Your task to perform on an android device: turn on bluetooth scan Image 0: 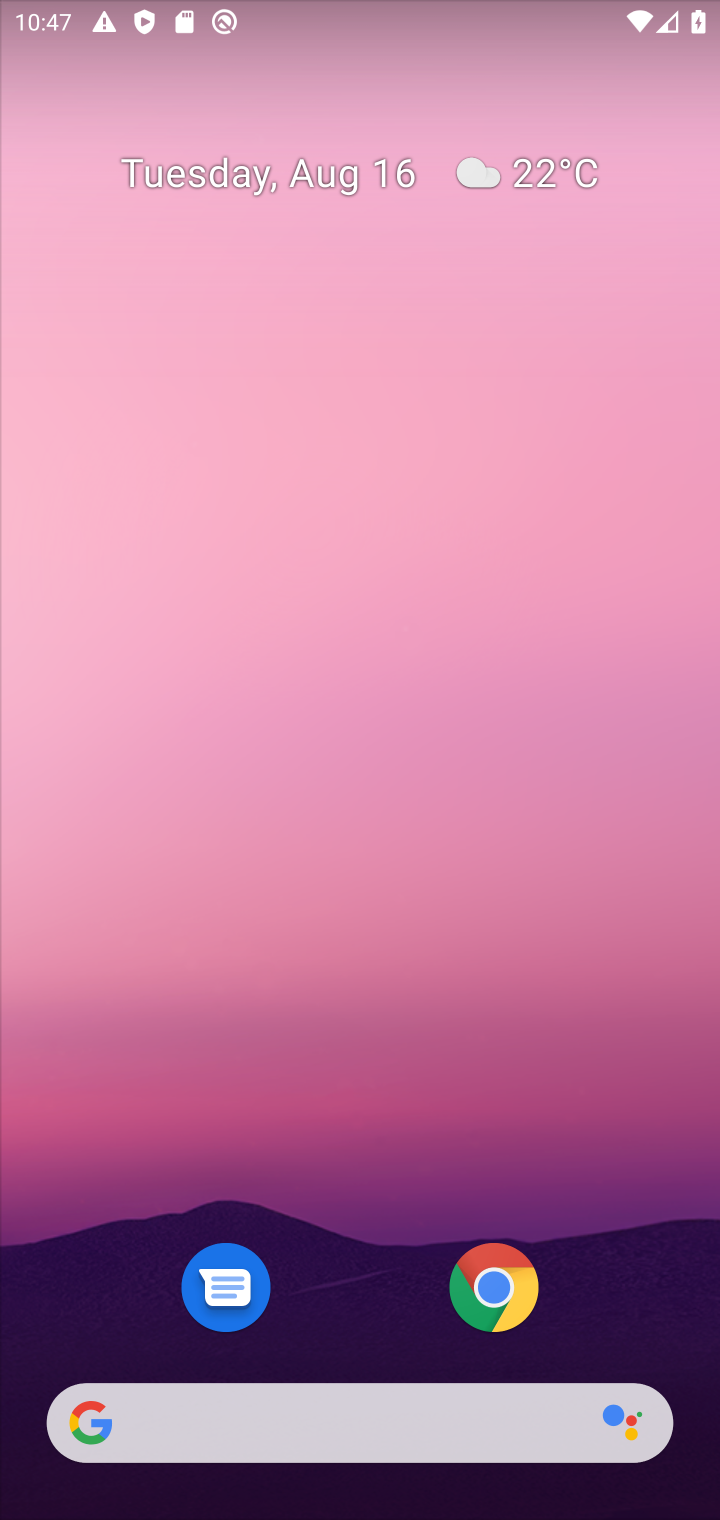
Step 0: drag from (665, 1305) to (593, 365)
Your task to perform on an android device: turn on bluetooth scan Image 1: 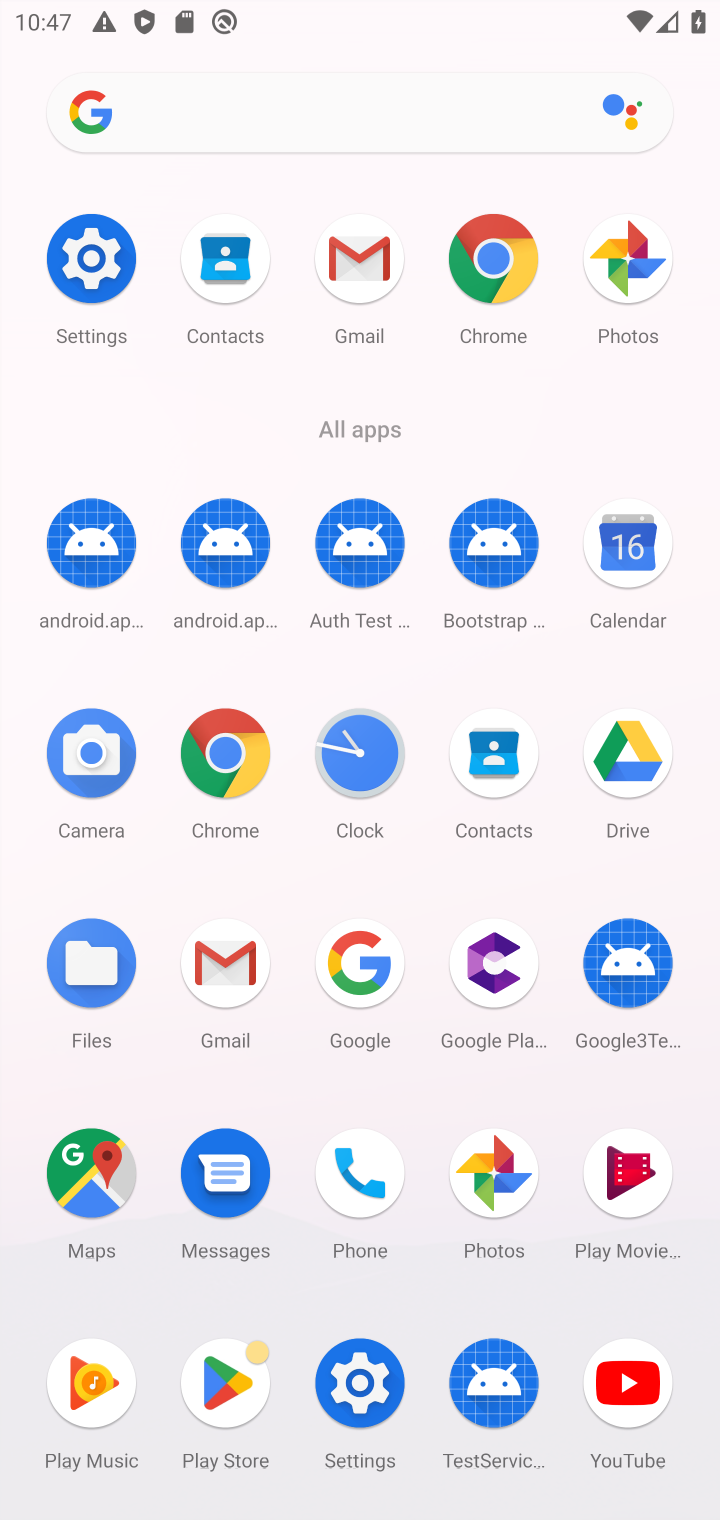
Step 1: click (358, 1381)
Your task to perform on an android device: turn on bluetooth scan Image 2: 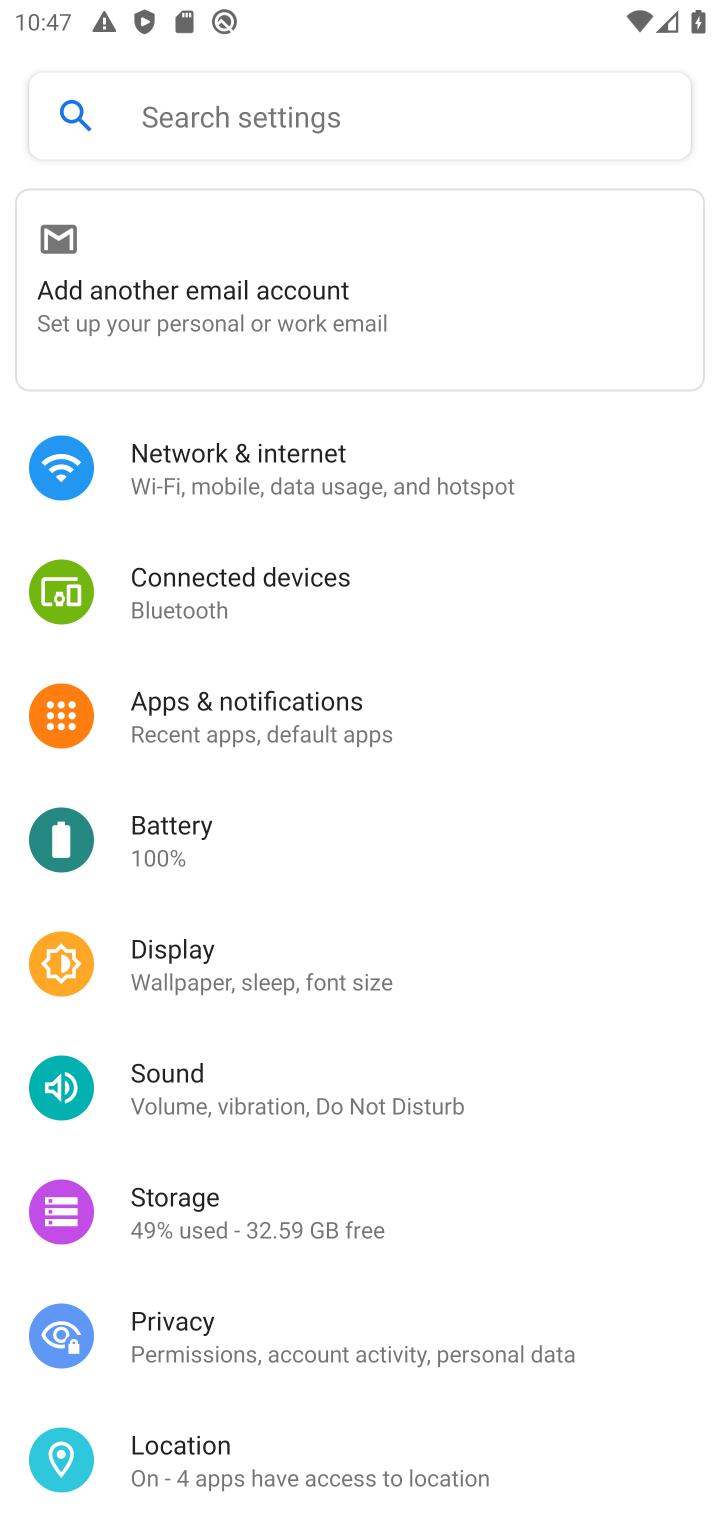
Step 2: drag from (533, 1272) to (560, 644)
Your task to perform on an android device: turn on bluetooth scan Image 3: 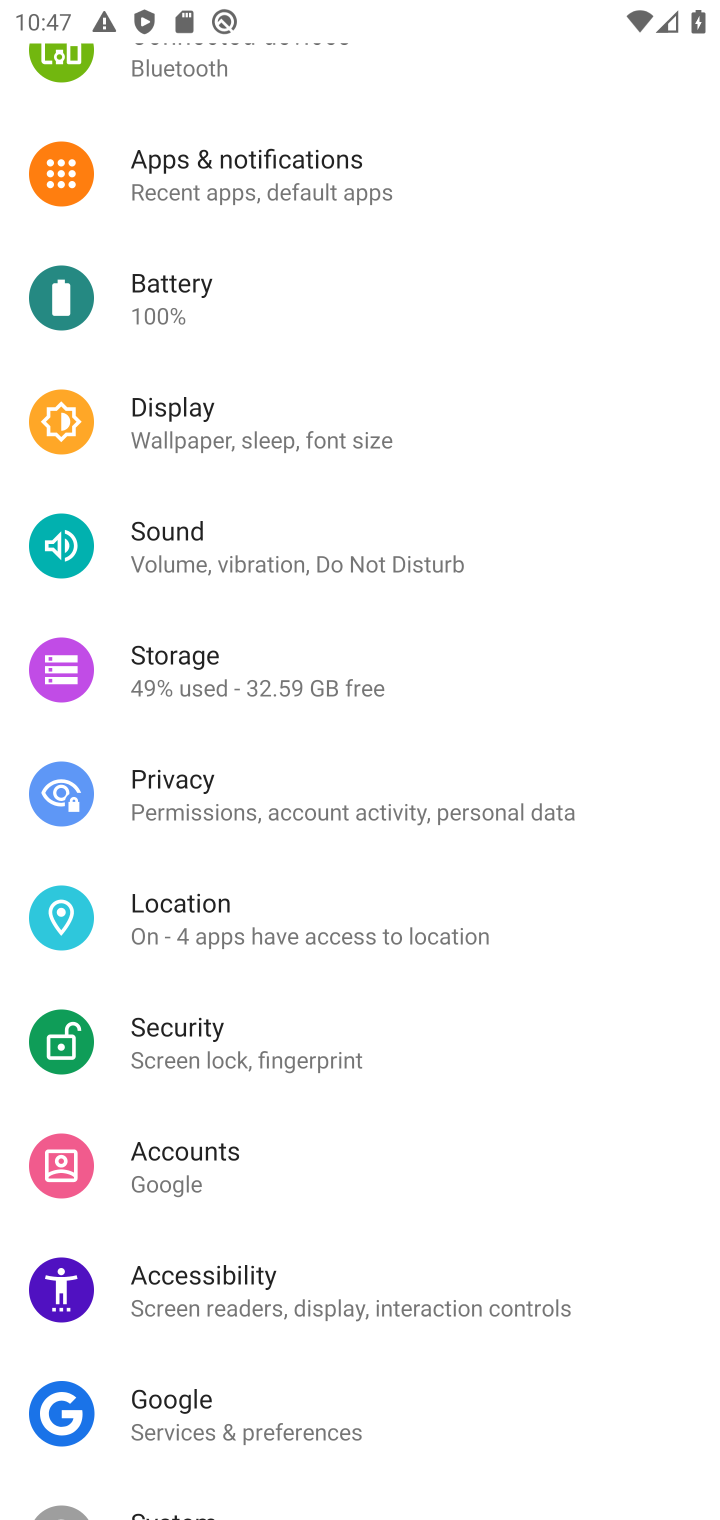
Step 3: click (206, 905)
Your task to perform on an android device: turn on bluetooth scan Image 4: 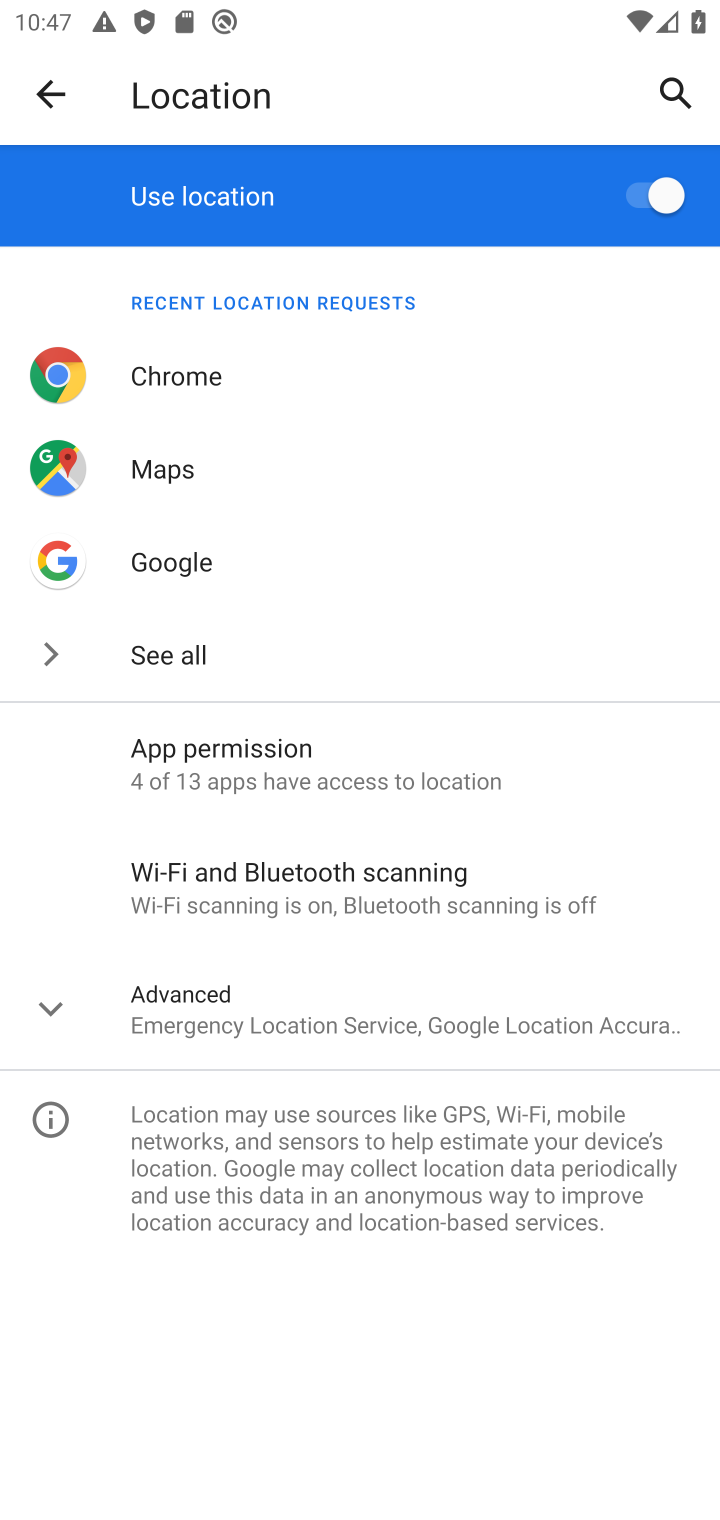
Step 4: click (280, 868)
Your task to perform on an android device: turn on bluetooth scan Image 5: 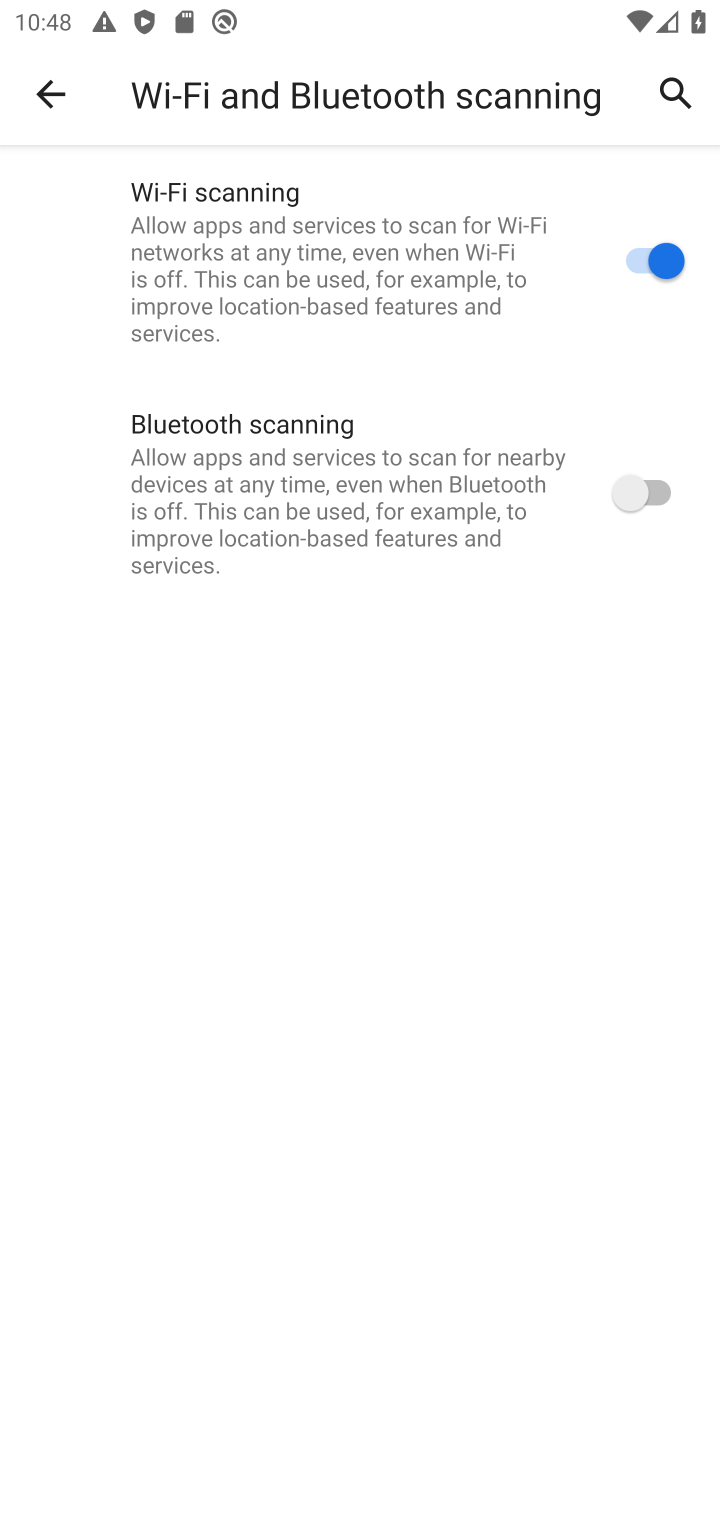
Step 5: click (664, 487)
Your task to perform on an android device: turn on bluetooth scan Image 6: 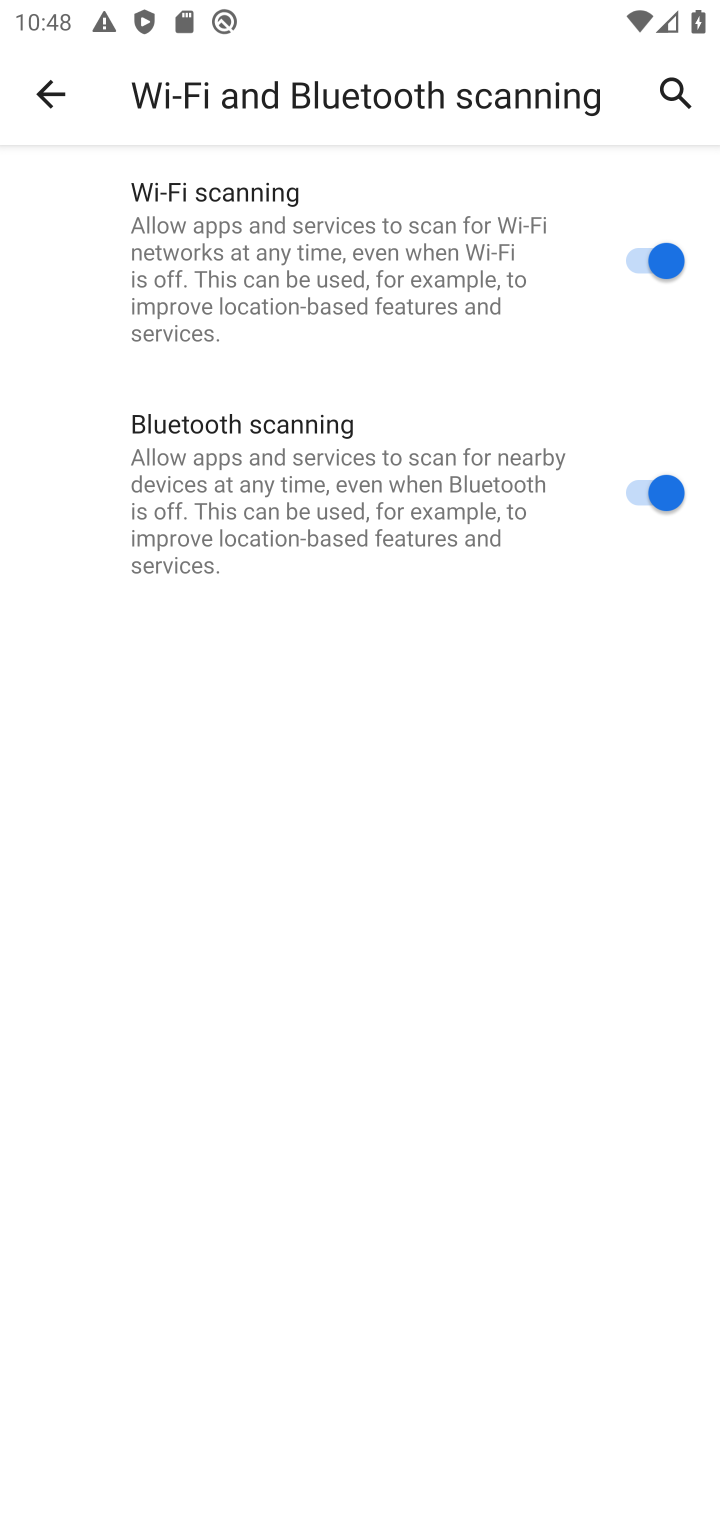
Step 6: task complete